Your task to perform on an android device: See recent photos Image 0: 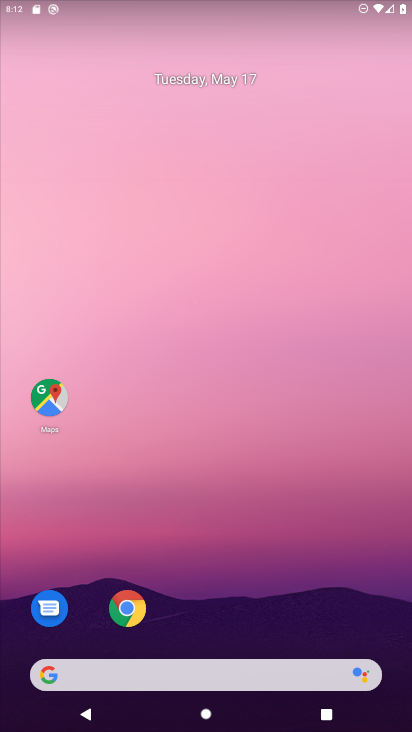
Step 0: drag from (225, 589) to (246, 104)
Your task to perform on an android device: See recent photos Image 1: 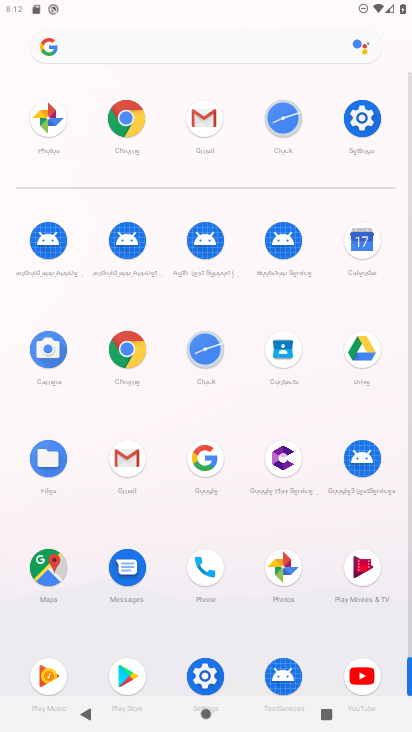
Step 1: click (287, 569)
Your task to perform on an android device: See recent photos Image 2: 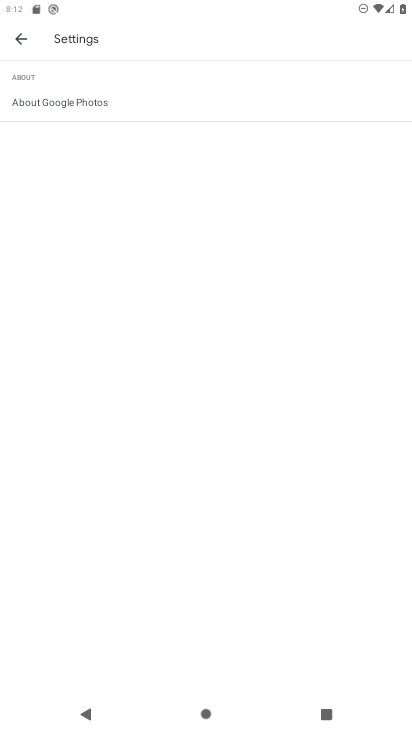
Step 2: click (20, 41)
Your task to perform on an android device: See recent photos Image 3: 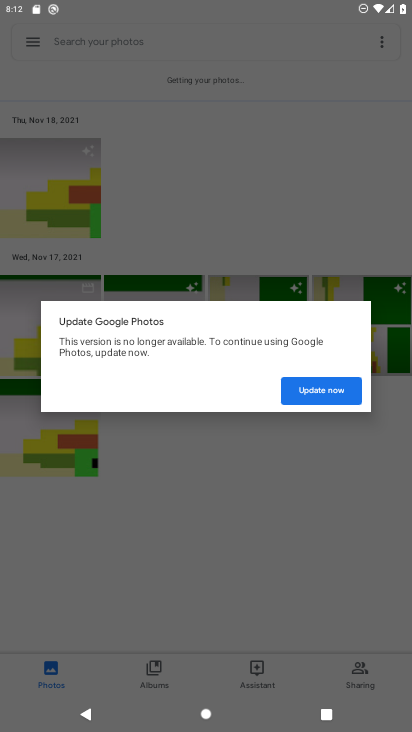
Step 3: click (331, 396)
Your task to perform on an android device: See recent photos Image 4: 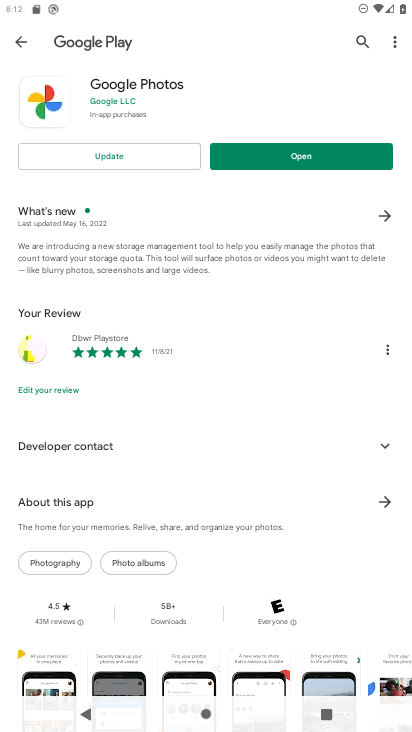
Step 4: click (163, 160)
Your task to perform on an android device: See recent photos Image 5: 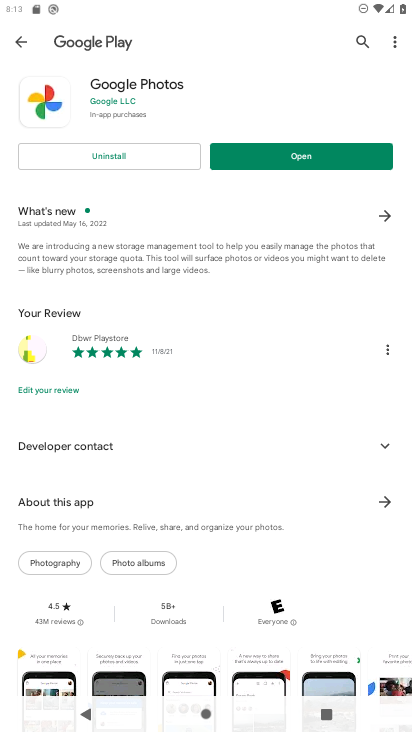
Step 5: click (301, 160)
Your task to perform on an android device: See recent photos Image 6: 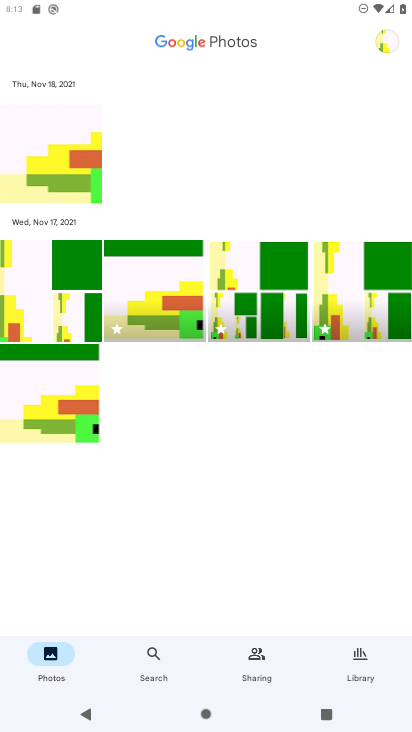
Step 6: click (31, 167)
Your task to perform on an android device: See recent photos Image 7: 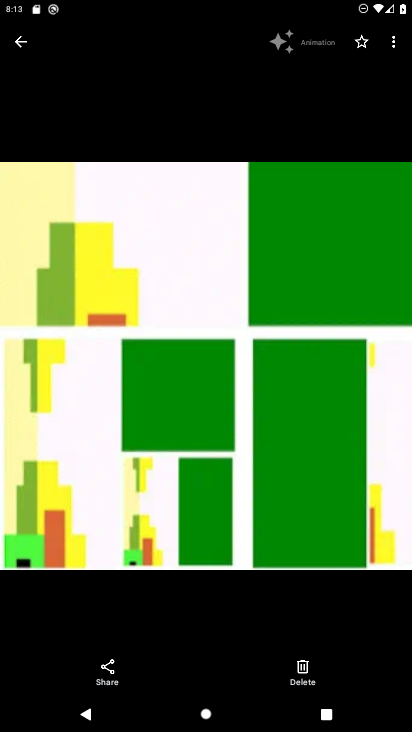
Step 7: task complete